Your task to perform on an android device: change notification settings in the gmail app Image 0: 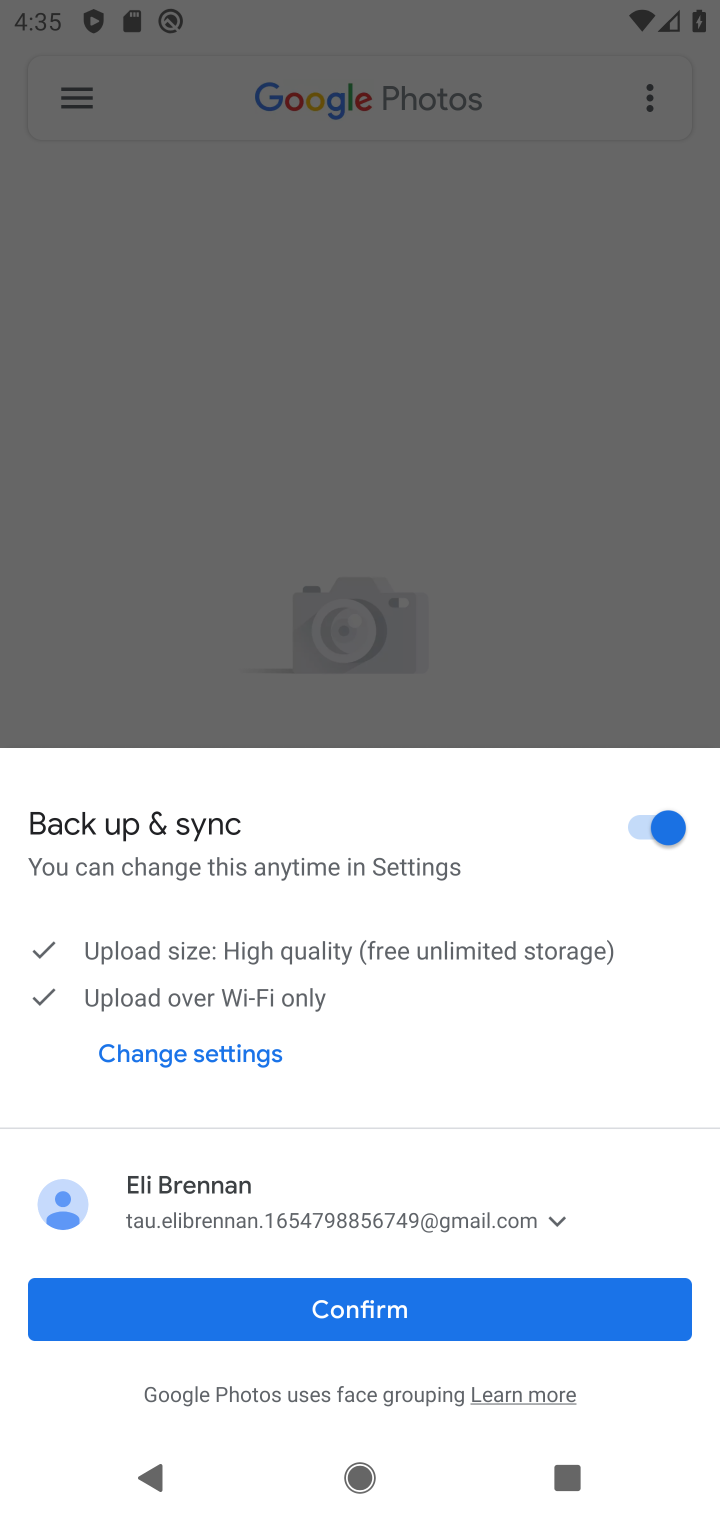
Step 0: press home button
Your task to perform on an android device: change notification settings in the gmail app Image 1: 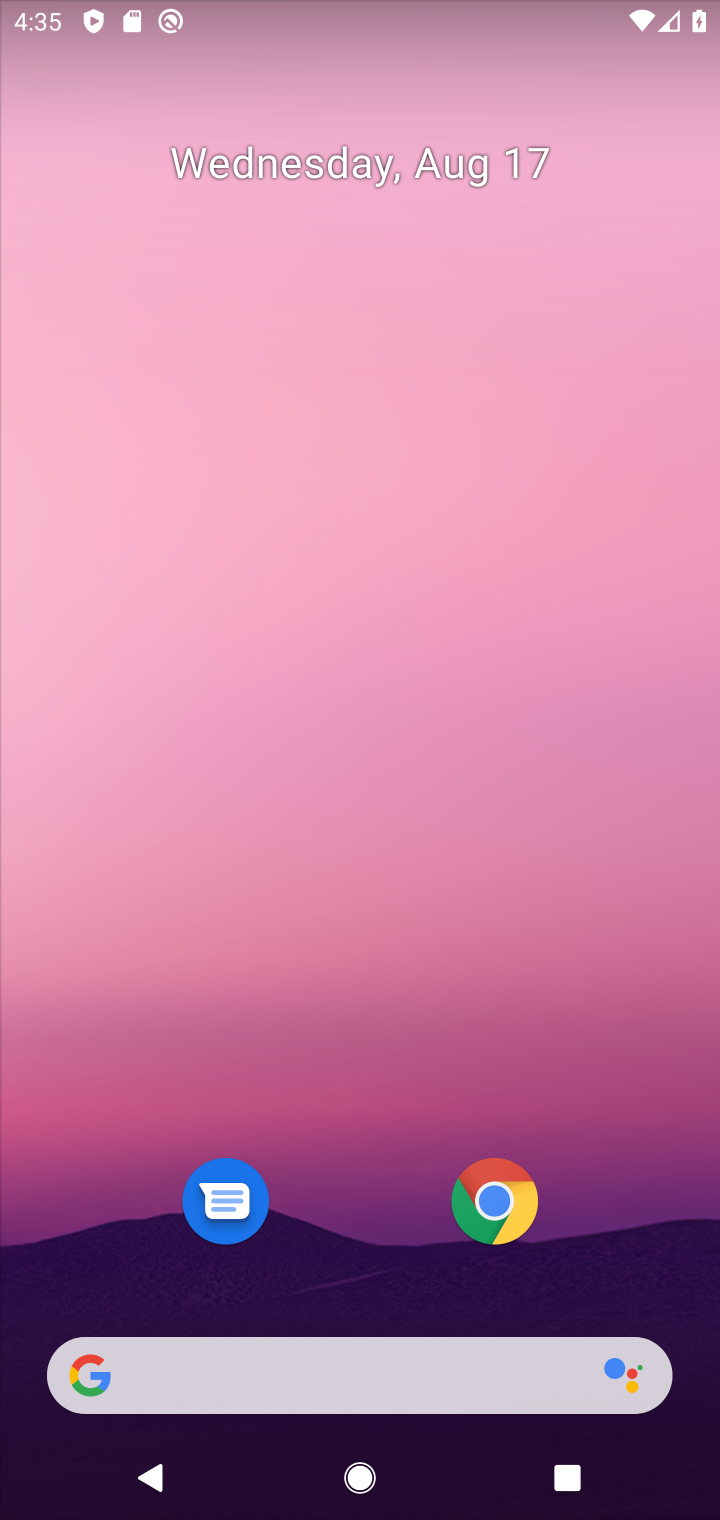
Step 1: drag from (443, 343) to (466, 6)
Your task to perform on an android device: change notification settings in the gmail app Image 2: 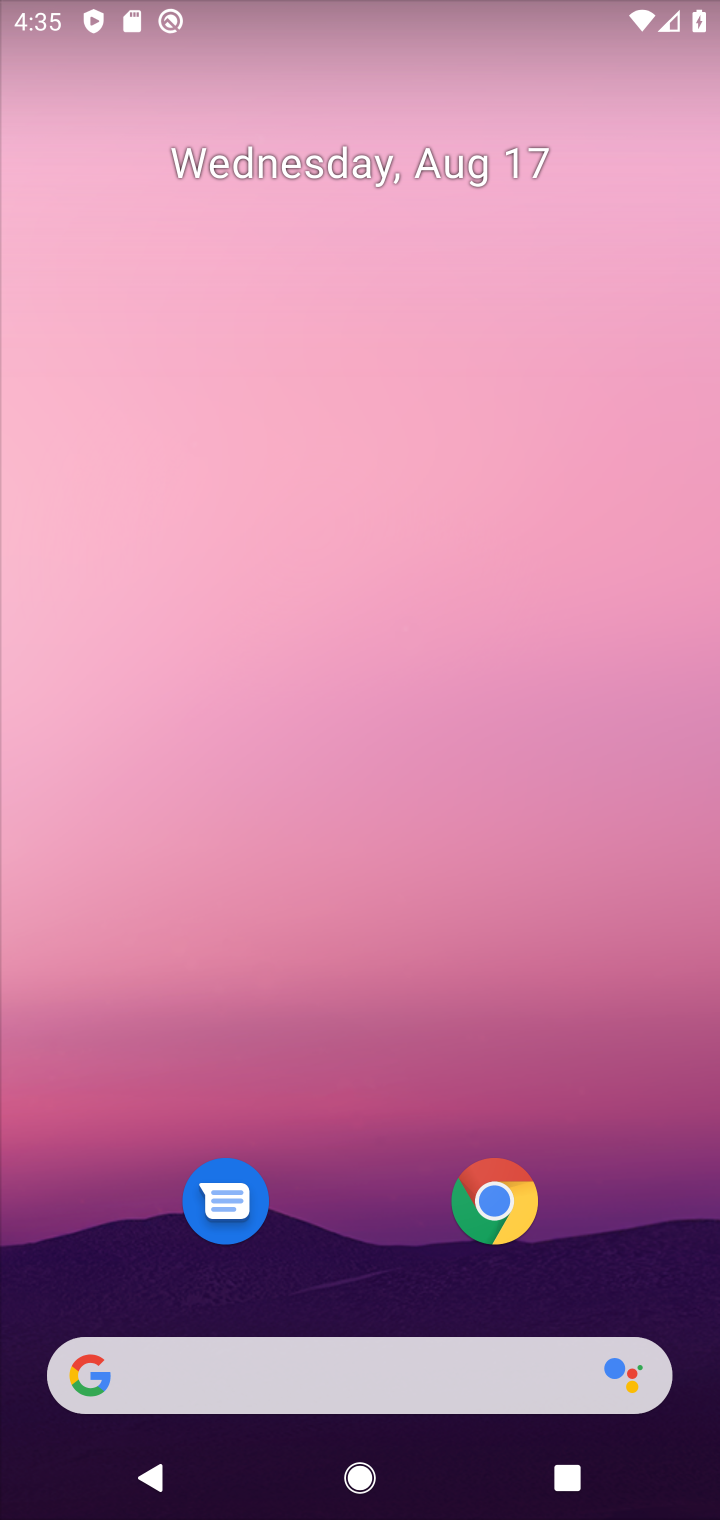
Step 2: drag from (455, 843) to (491, 0)
Your task to perform on an android device: change notification settings in the gmail app Image 3: 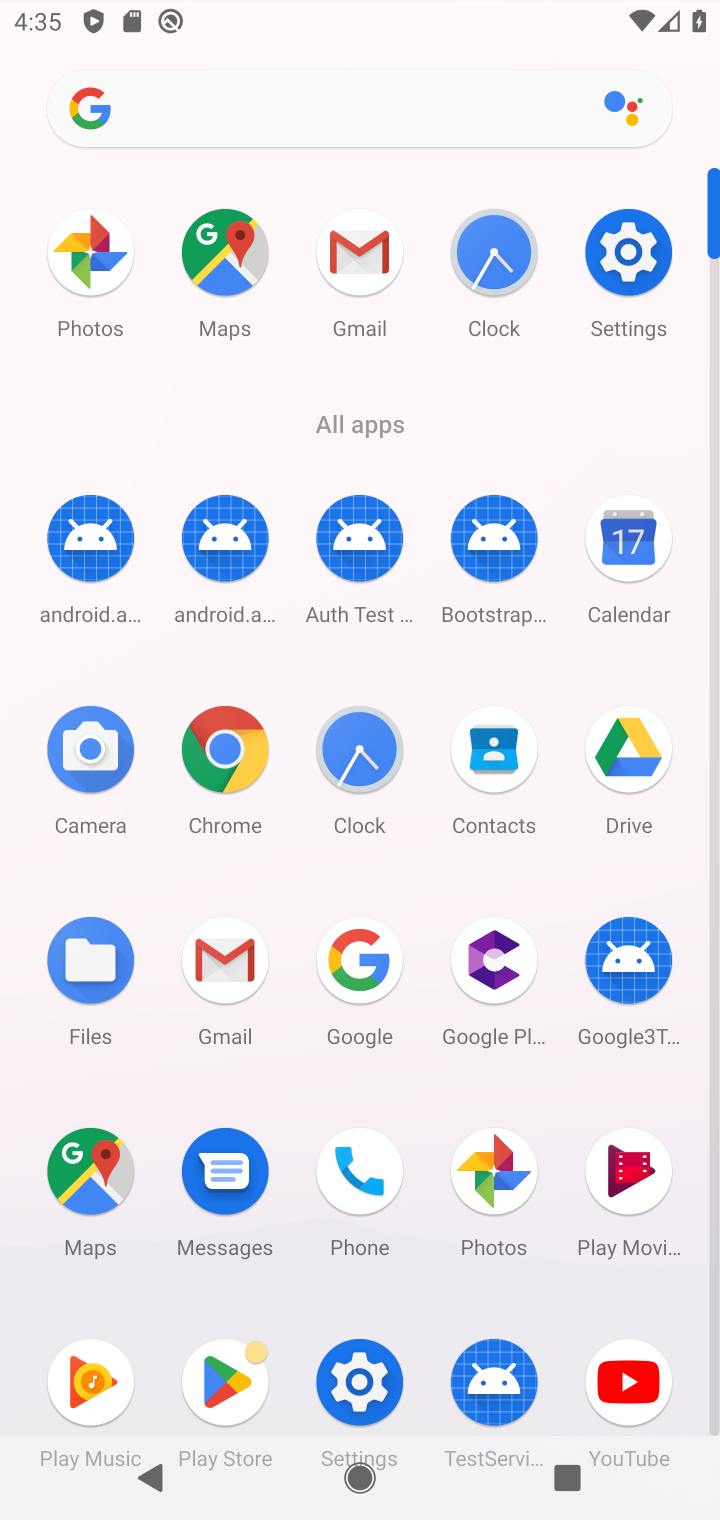
Step 3: click (355, 277)
Your task to perform on an android device: change notification settings in the gmail app Image 4: 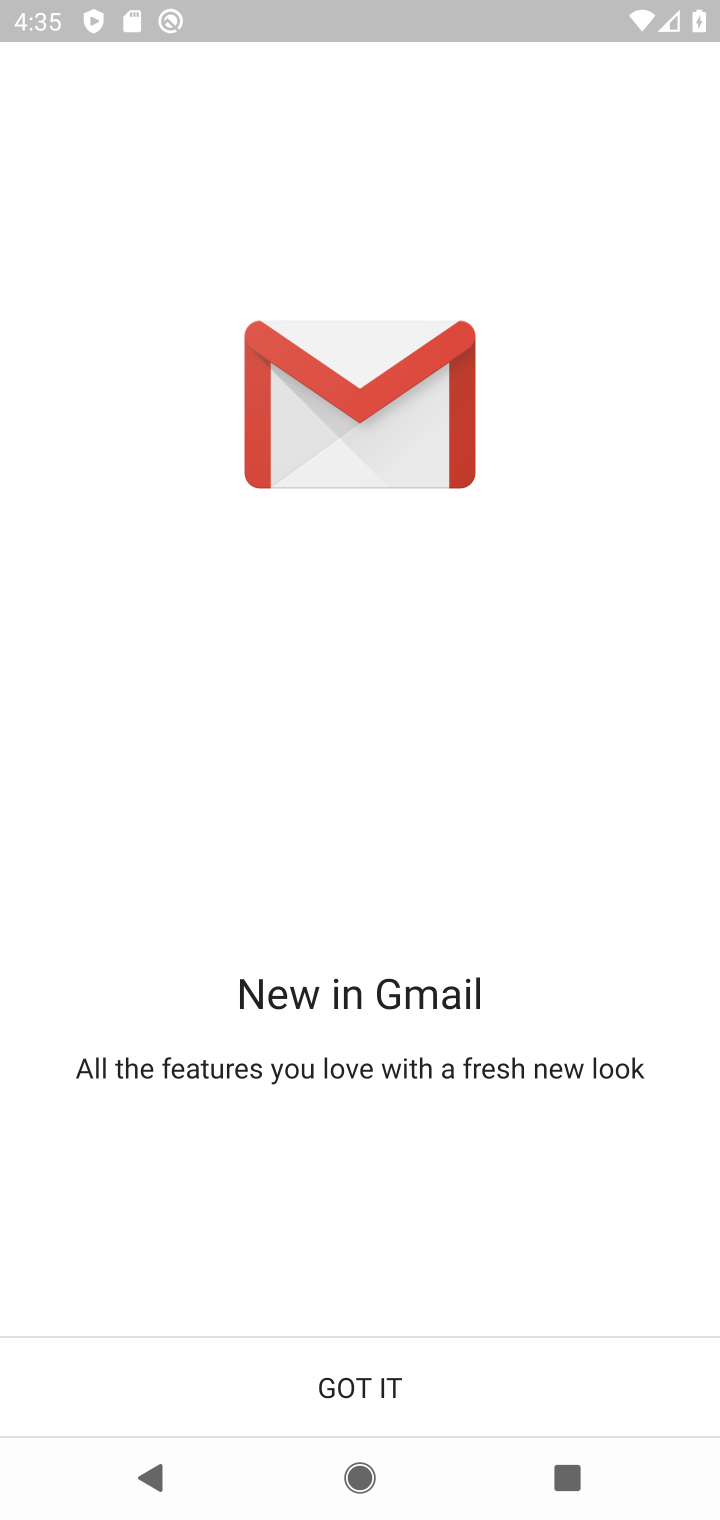
Step 4: click (347, 1408)
Your task to perform on an android device: change notification settings in the gmail app Image 5: 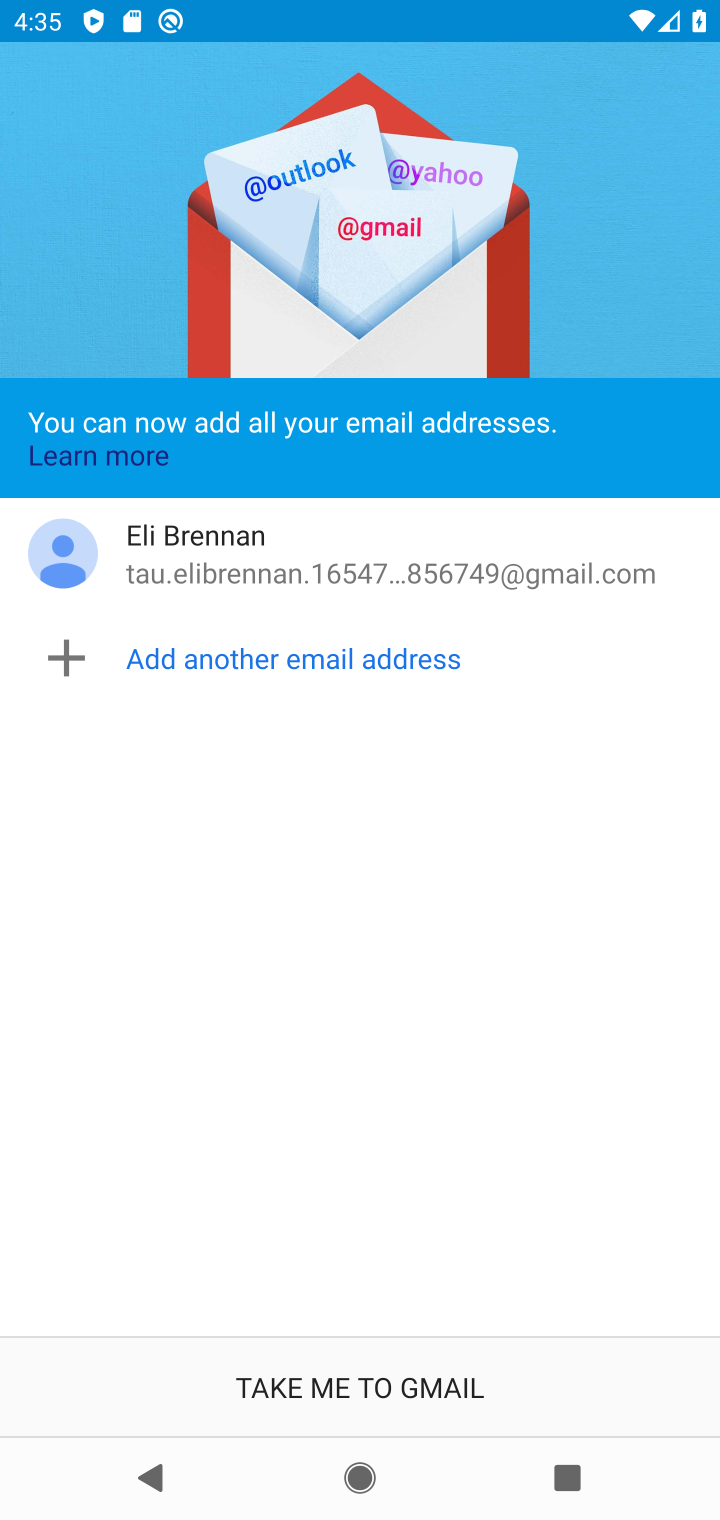
Step 5: click (411, 1404)
Your task to perform on an android device: change notification settings in the gmail app Image 6: 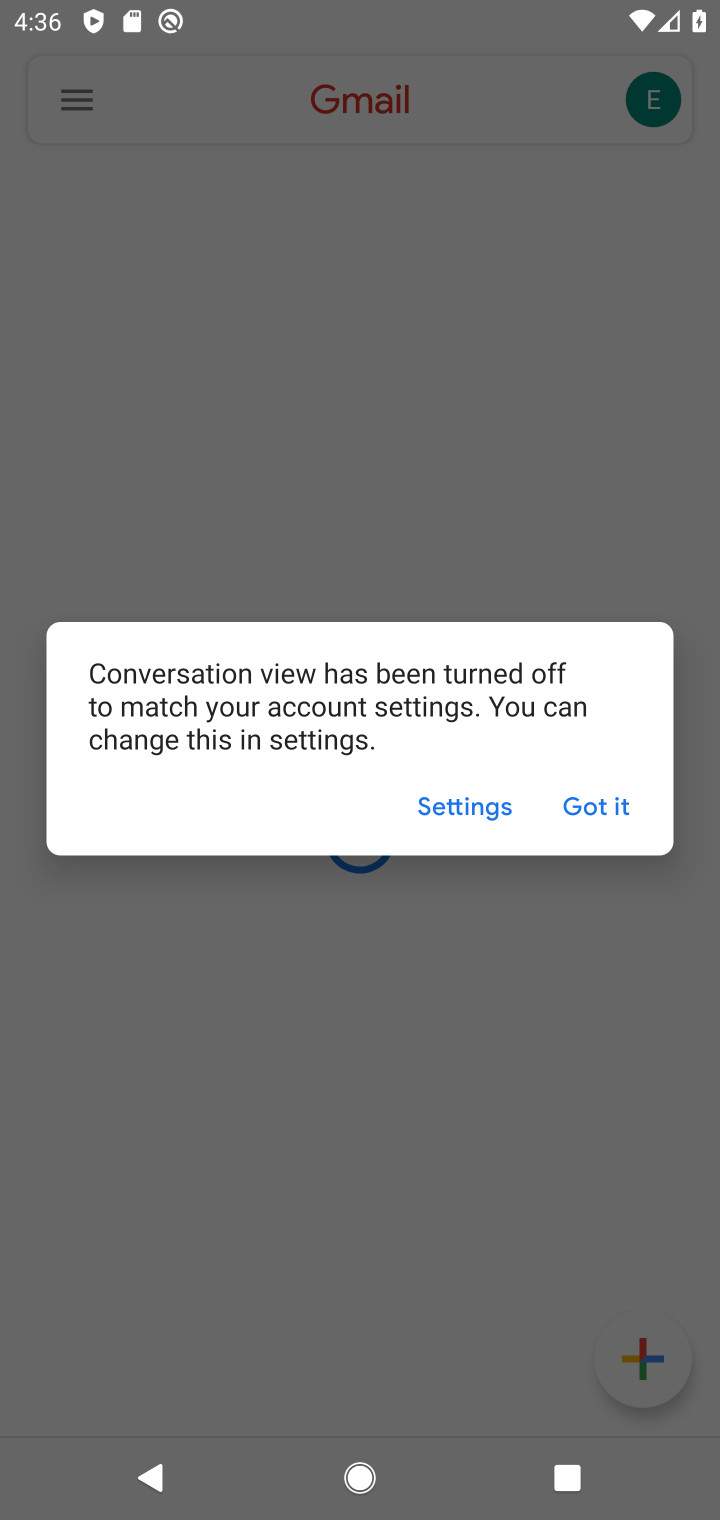
Step 6: click (648, 805)
Your task to perform on an android device: change notification settings in the gmail app Image 7: 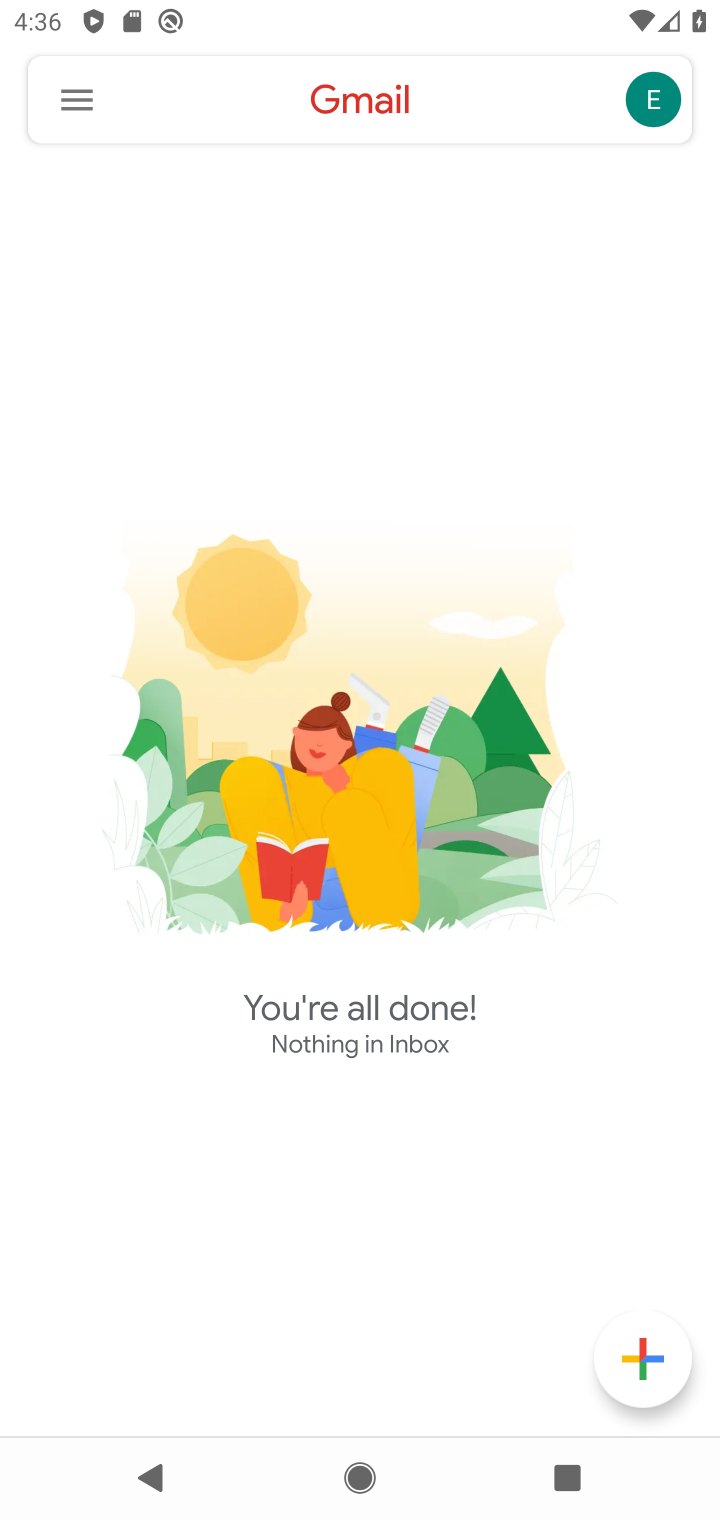
Step 7: click (79, 111)
Your task to perform on an android device: change notification settings in the gmail app Image 8: 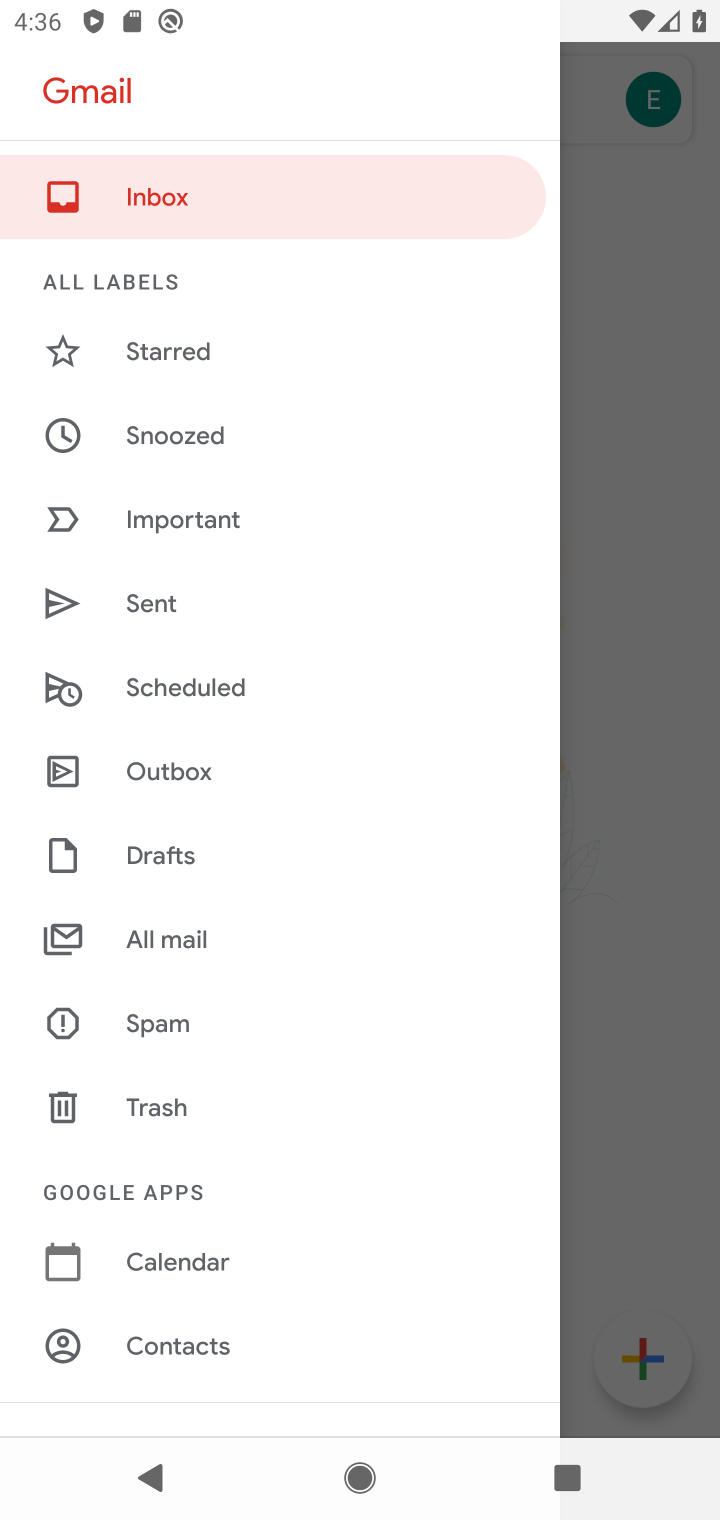
Step 8: drag from (417, 1209) to (452, 384)
Your task to perform on an android device: change notification settings in the gmail app Image 9: 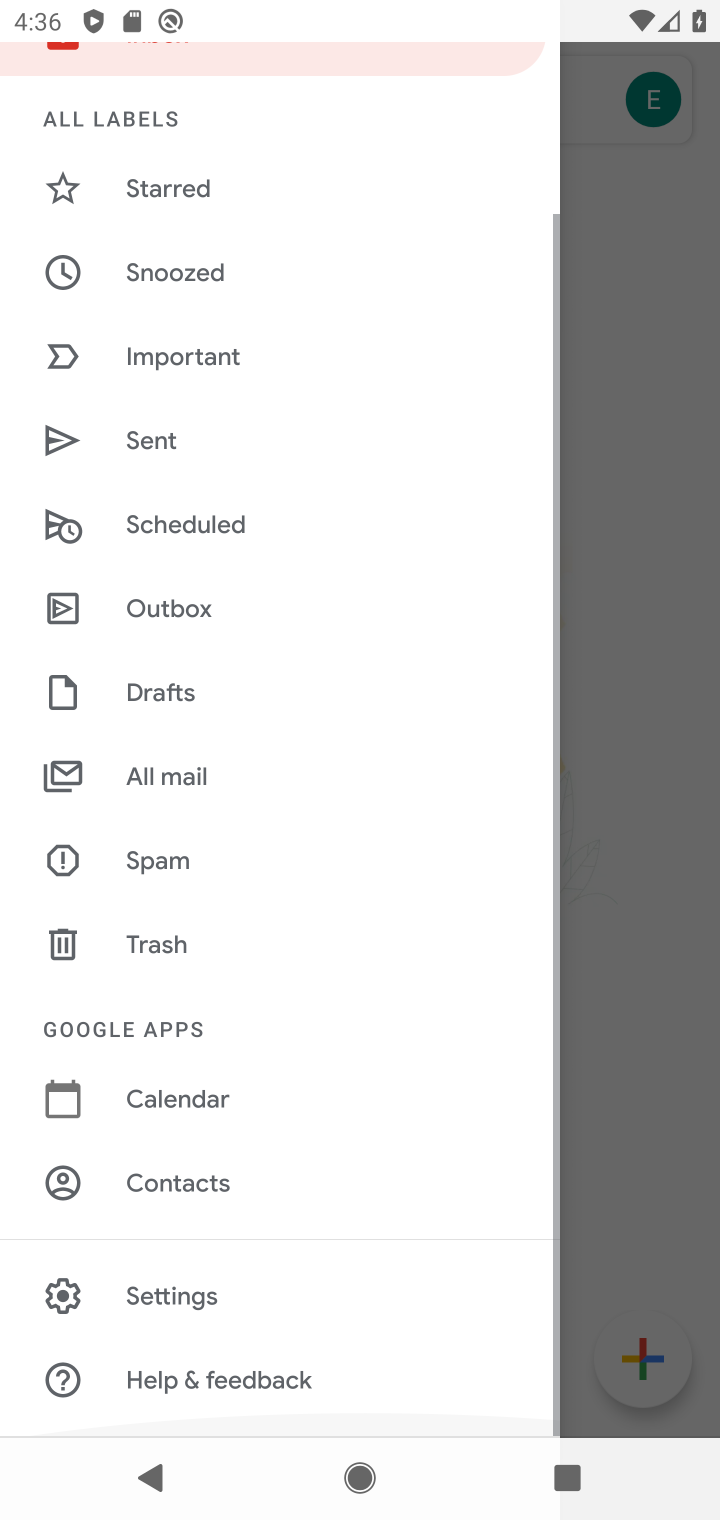
Step 9: click (138, 1310)
Your task to perform on an android device: change notification settings in the gmail app Image 10: 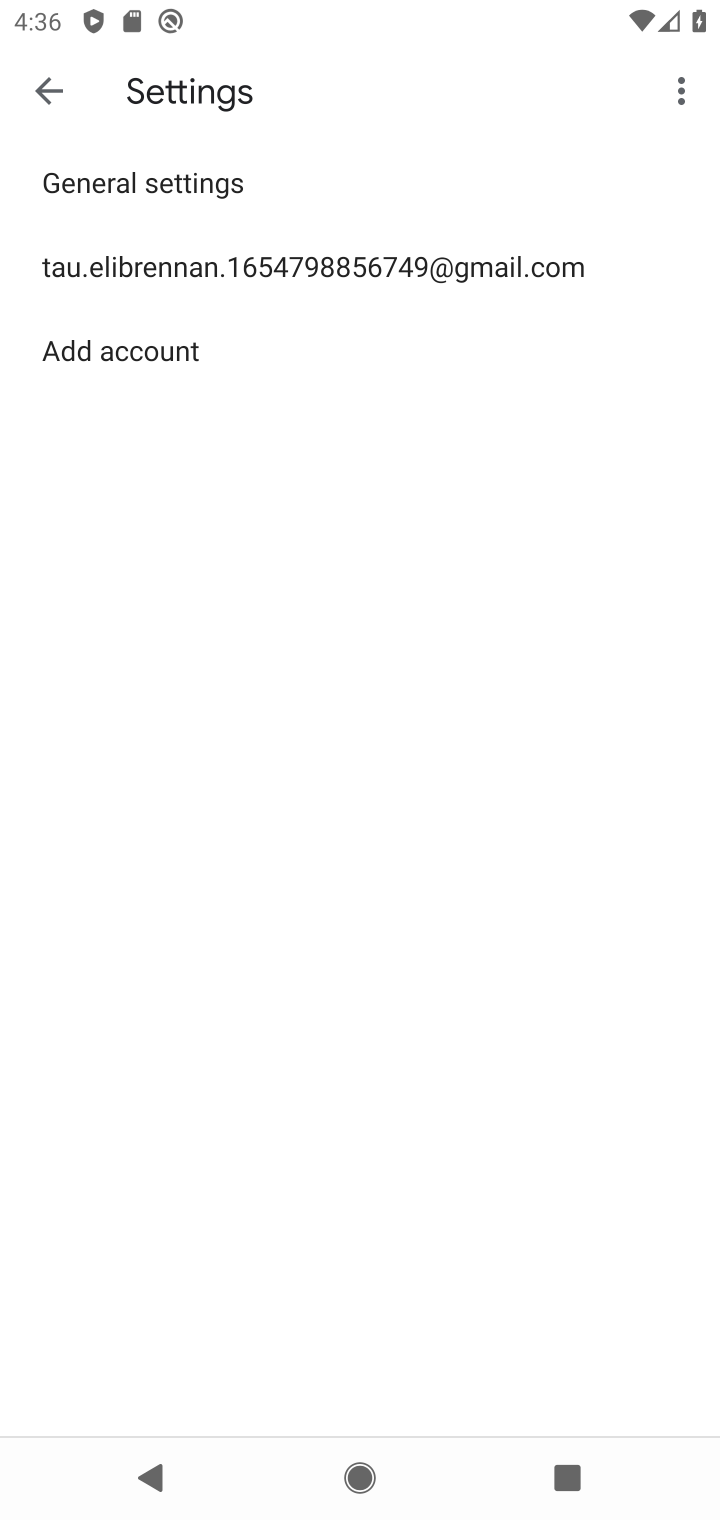
Step 10: click (305, 282)
Your task to perform on an android device: change notification settings in the gmail app Image 11: 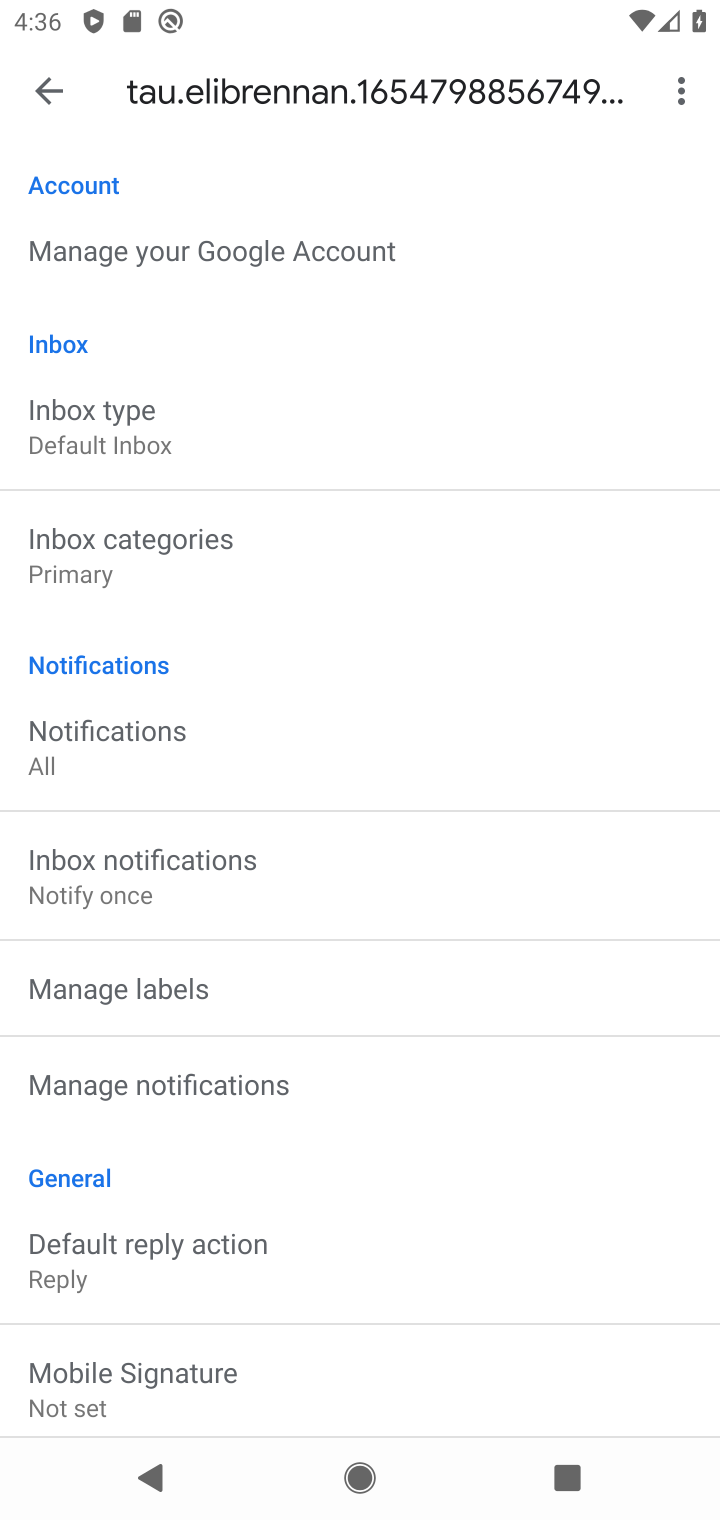
Step 11: click (140, 1098)
Your task to perform on an android device: change notification settings in the gmail app Image 12: 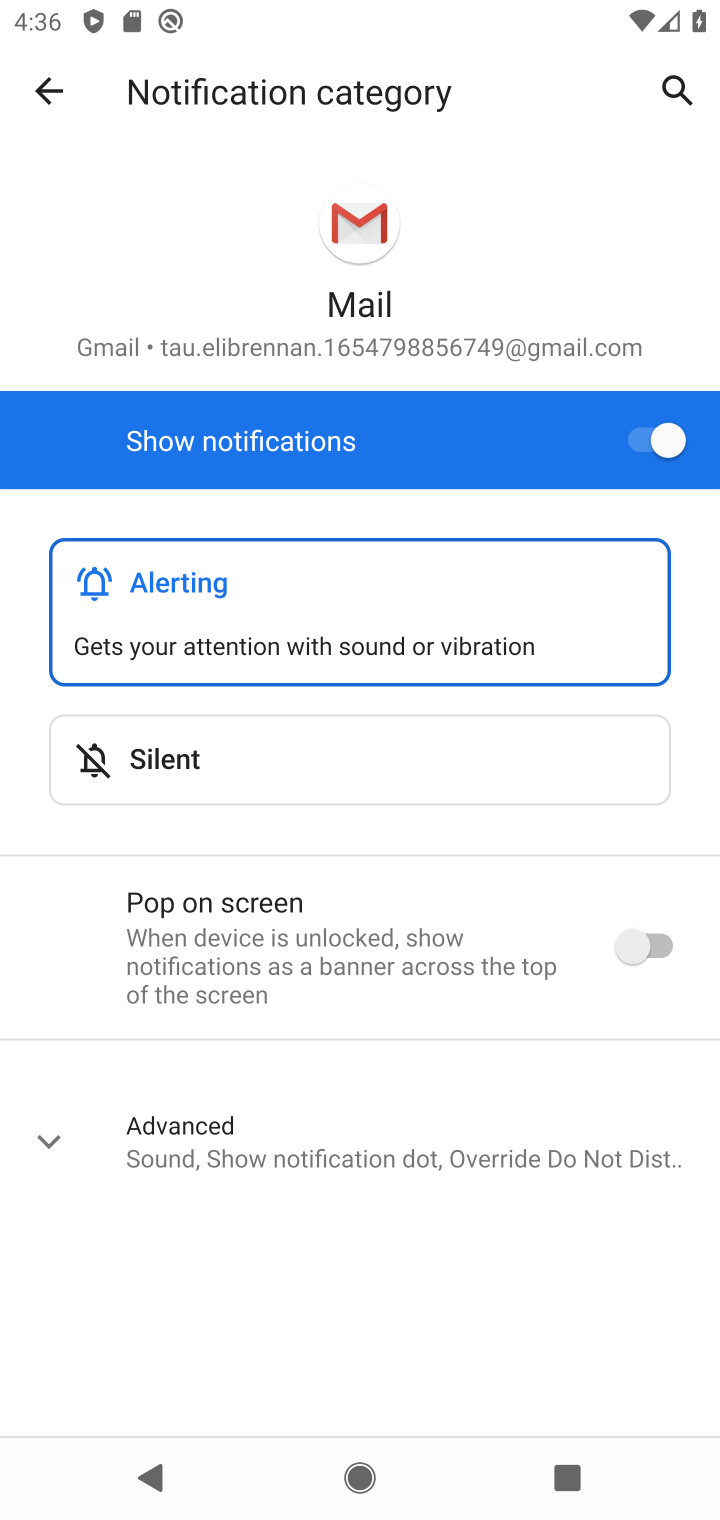
Step 12: click (669, 446)
Your task to perform on an android device: change notification settings in the gmail app Image 13: 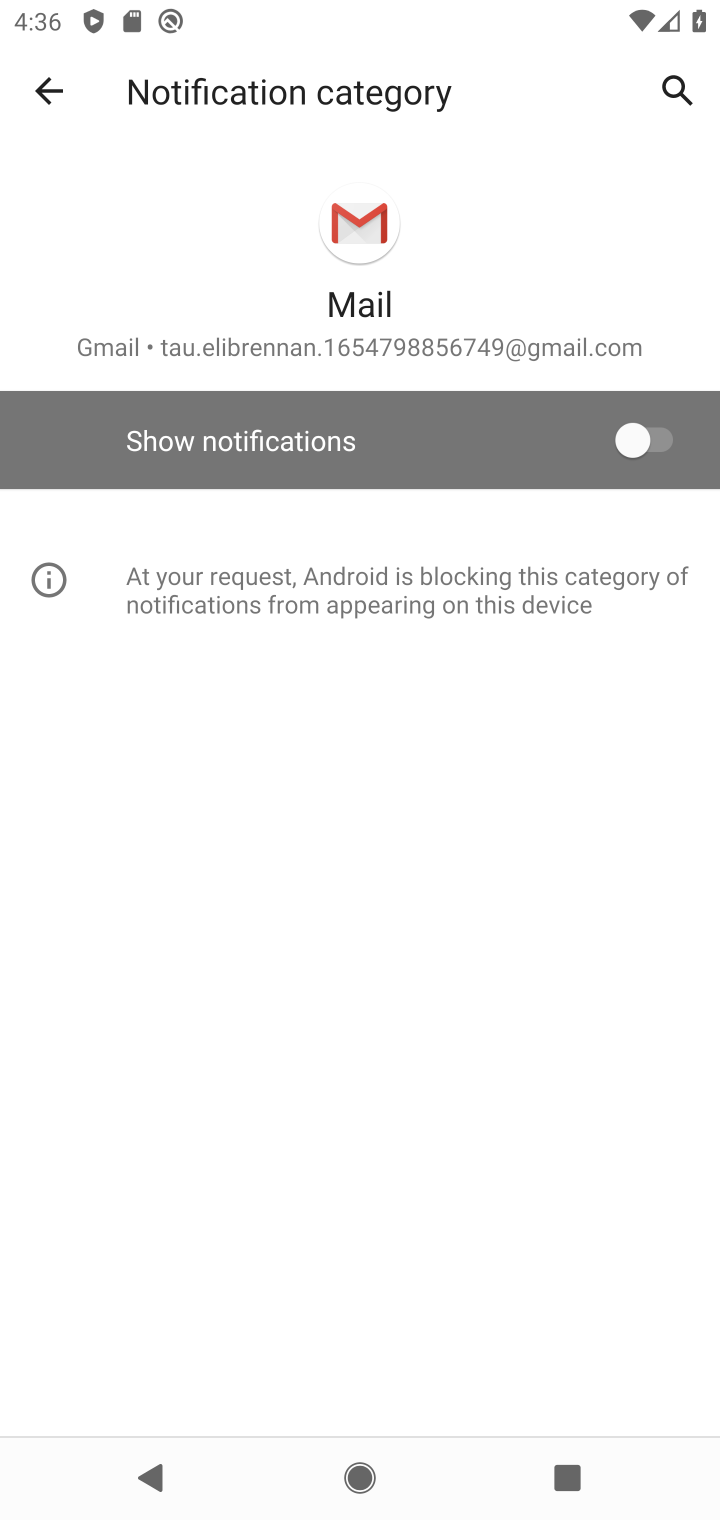
Step 13: task complete